Your task to perform on an android device: check the backup settings in the google photos Image 0: 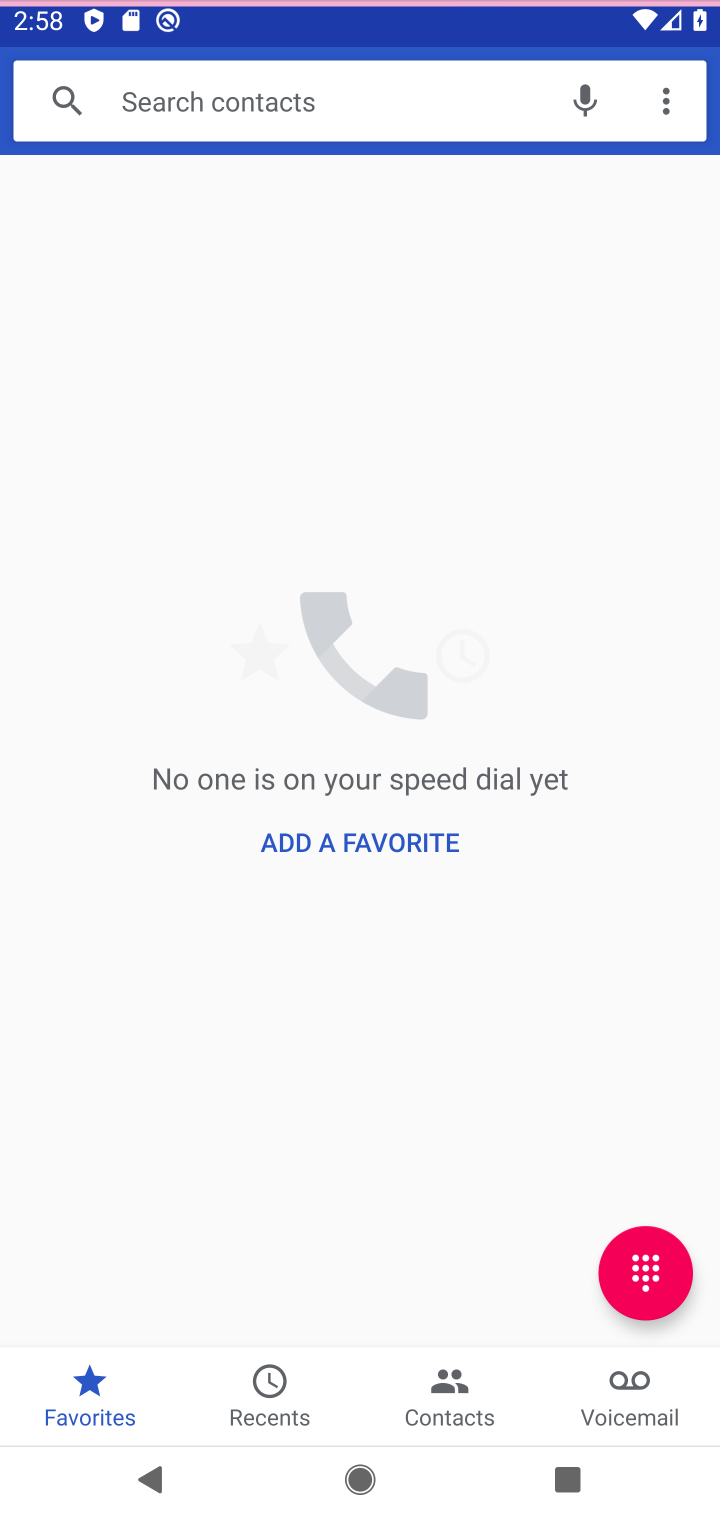
Step 0: press home button
Your task to perform on an android device: check the backup settings in the google photos Image 1: 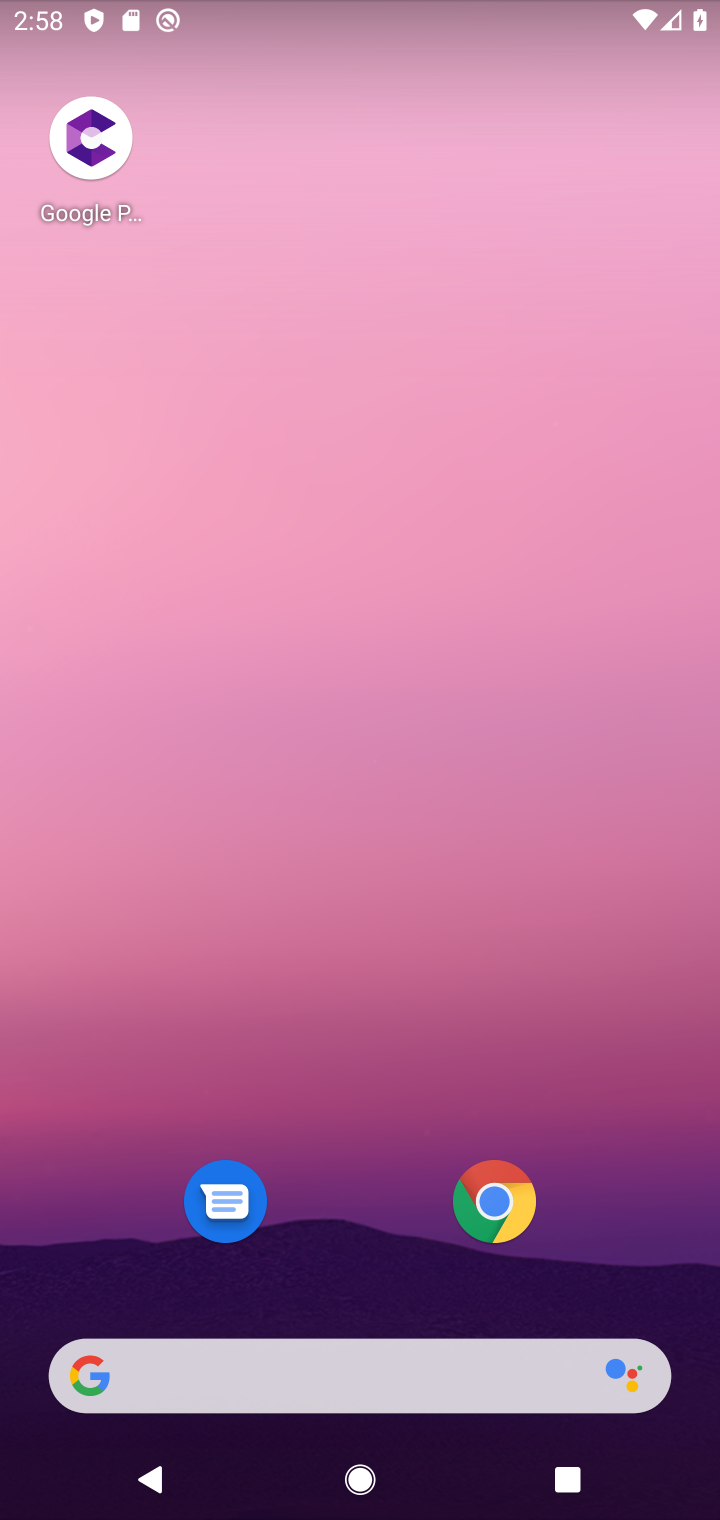
Step 1: drag from (329, 1266) to (94, 137)
Your task to perform on an android device: check the backup settings in the google photos Image 2: 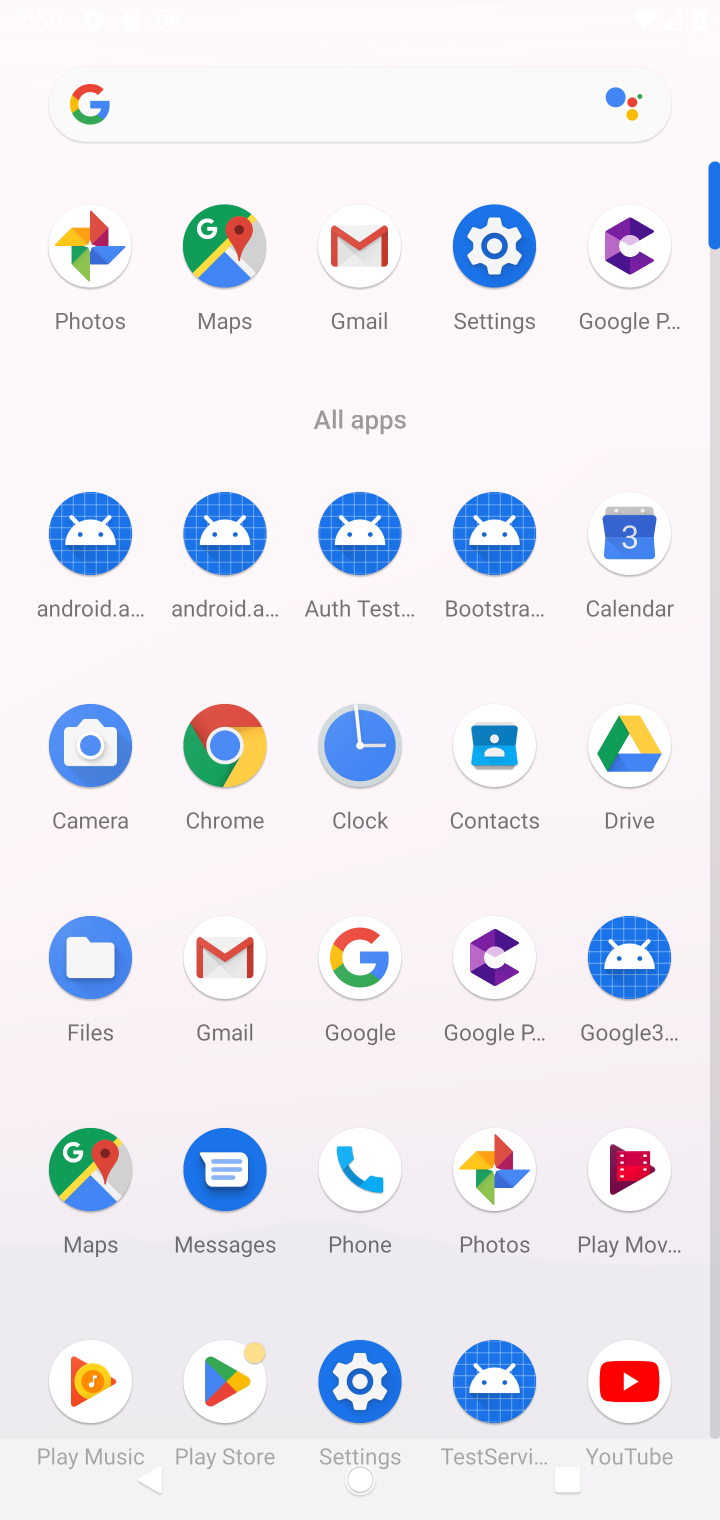
Step 2: click (503, 1162)
Your task to perform on an android device: check the backup settings in the google photos Image 3: 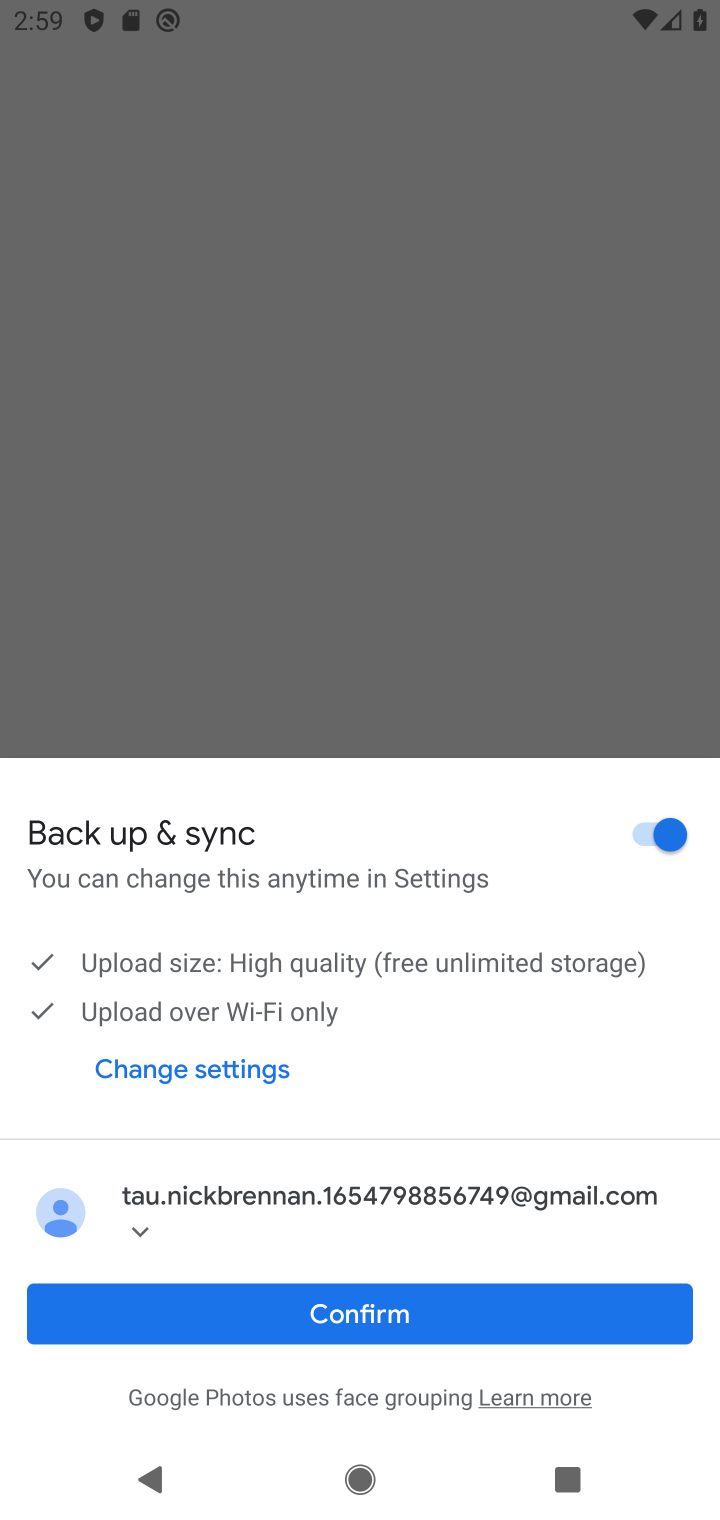
Step 3: click (533, 1323)
Your task to perform on an android device: check the backup settings in the google photos Image 4: 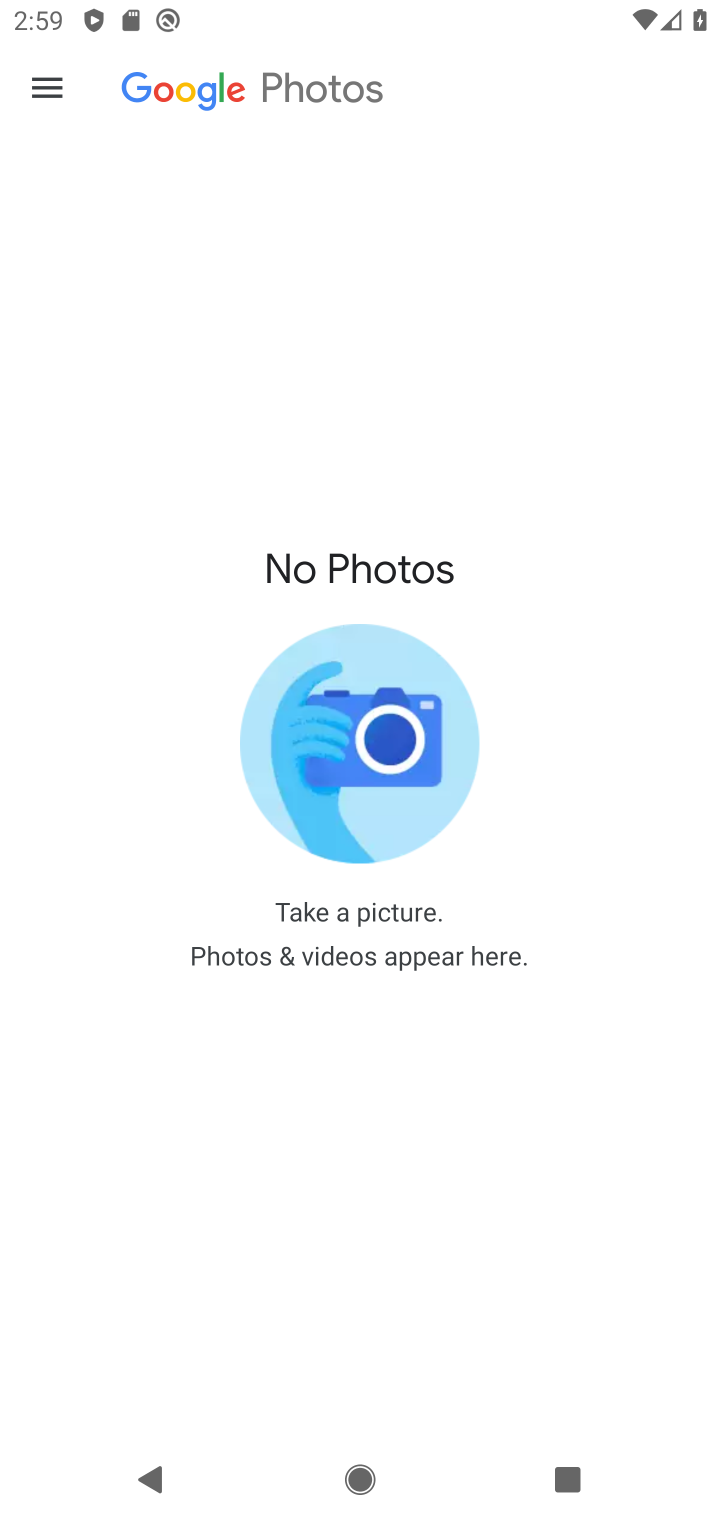
Step 4: click (52, 92)
Your task to perform on an android device: check the backup settings in the google photos Image 5: 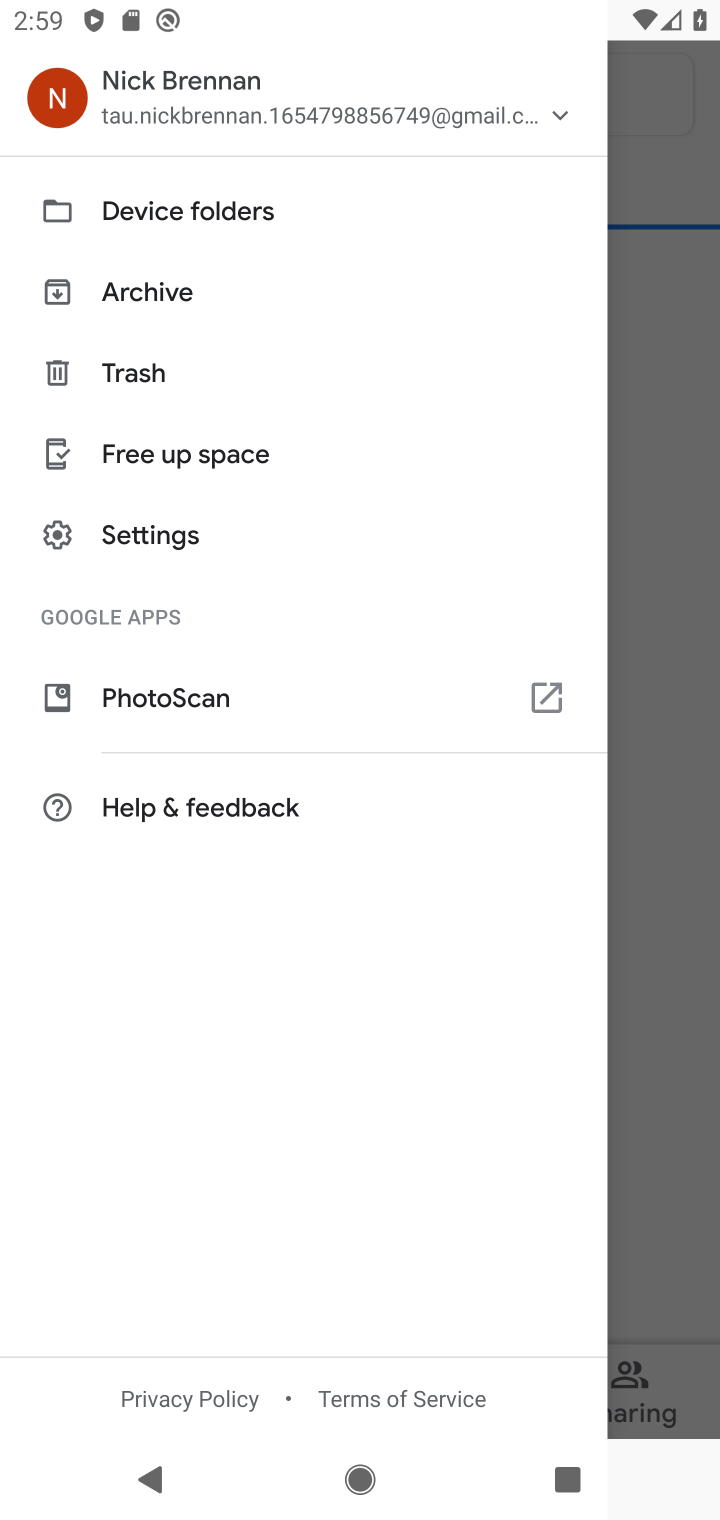
Step 5: click (146, 521)
Your task to perform on an android device: check the backup settings in the google photos Image 6: 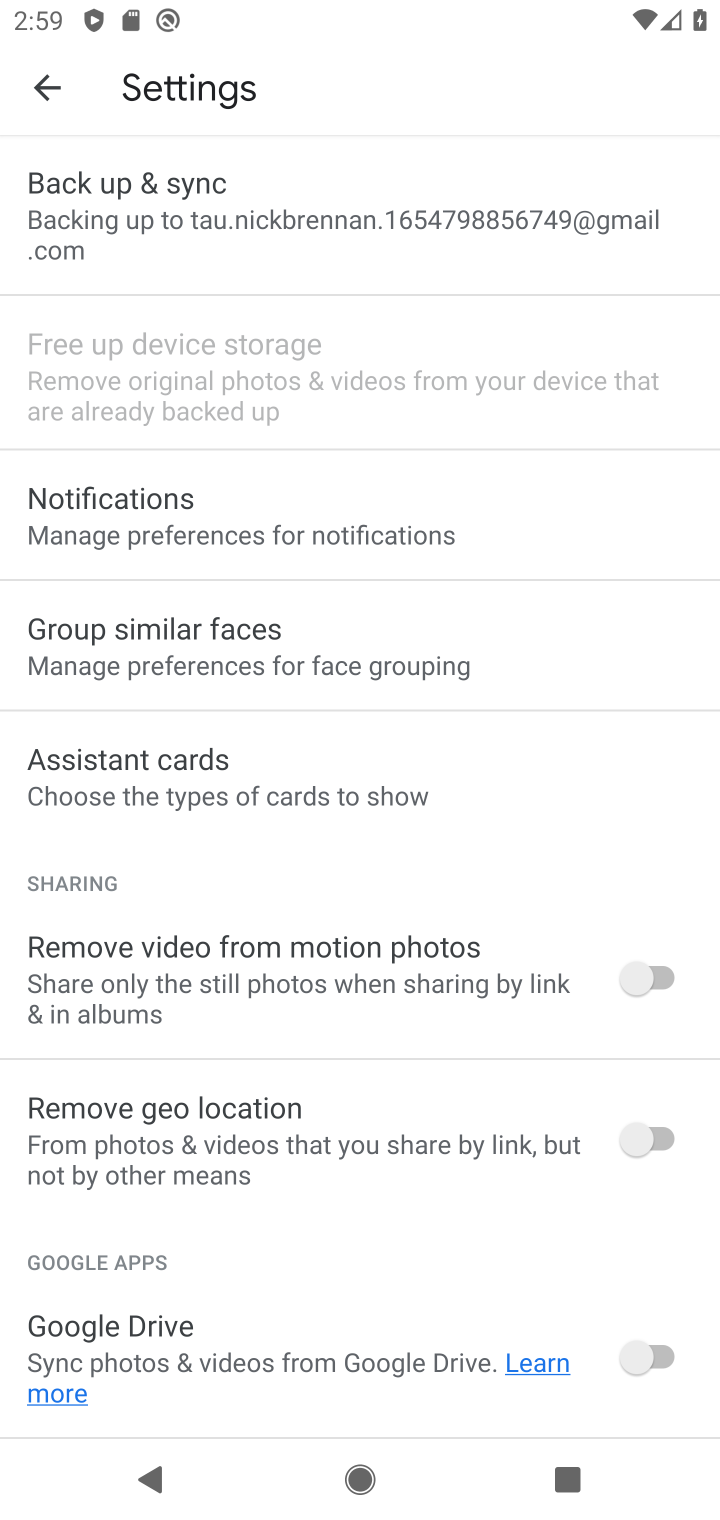
Step 6: click (364, 219)
Your task to perform on an android device: check the backup settings in the google photos Image 7: 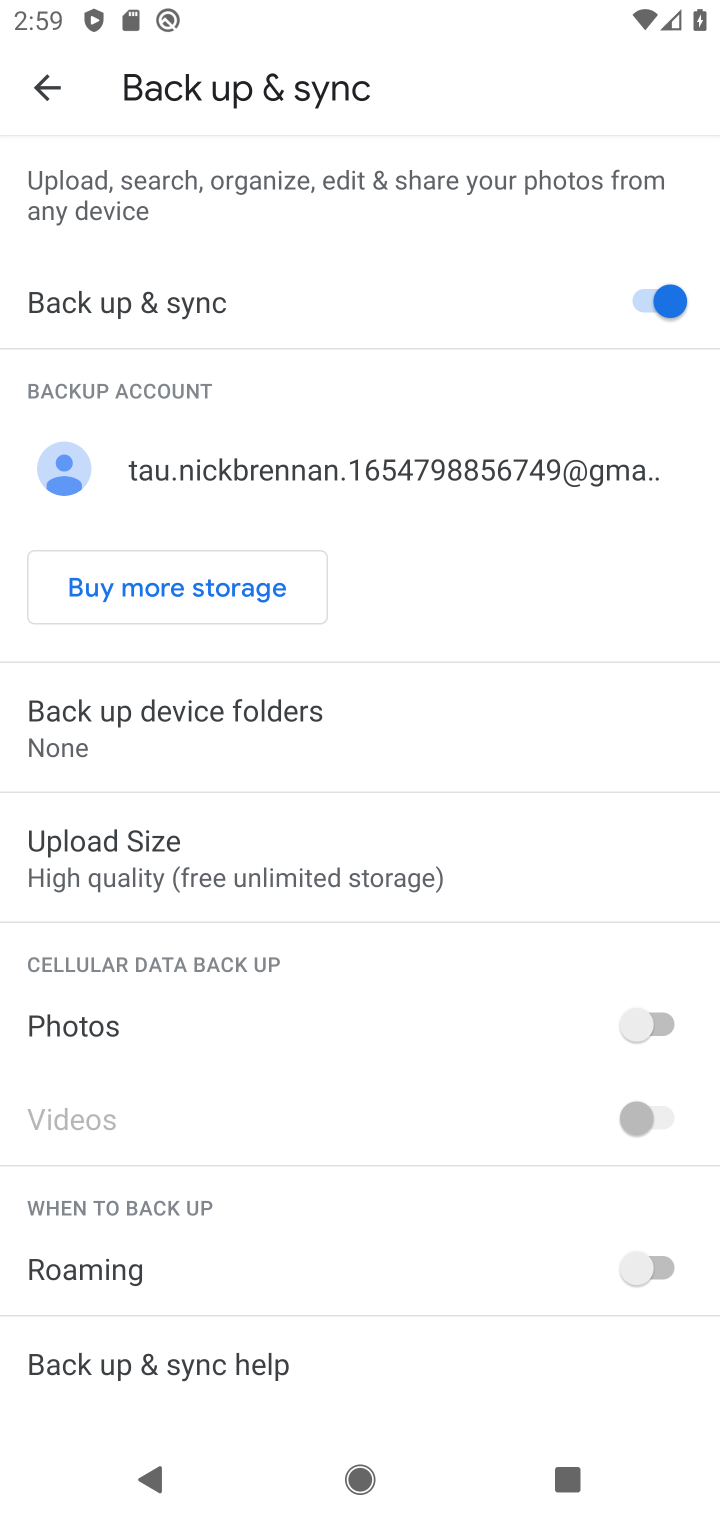
Step 7: task complete